Your task to perform on an android device: change notifications settings Image 0: 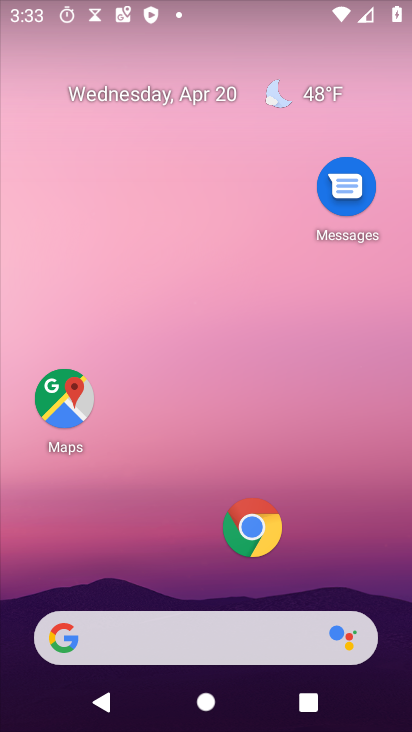
Step 0: drag from (227, 593) to (346, 86)
Your task to perform on an android device: change notifications settings Image 1: 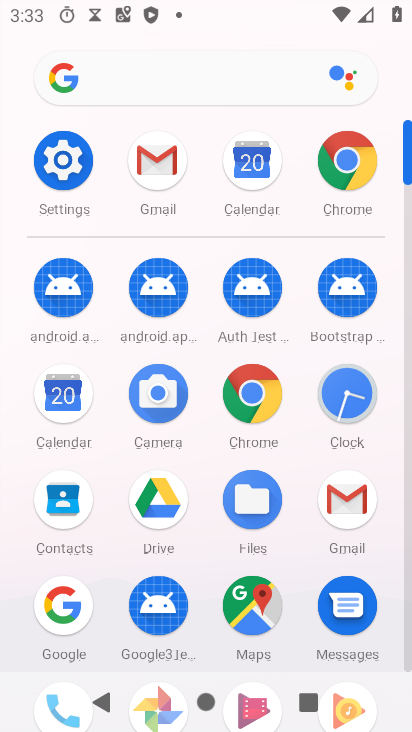
Step 1: click (66, 163)
Your task to perform on an android device: change notifications settings Image 2: 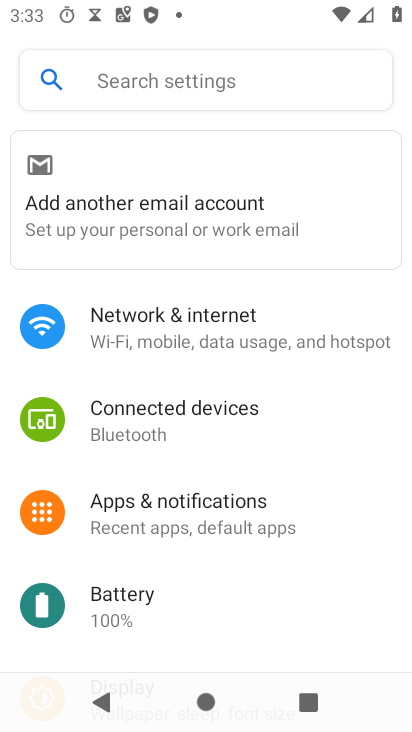
Step 2: click (163, 501)
Your task to perform on an android device: change notifications settings Image 3: 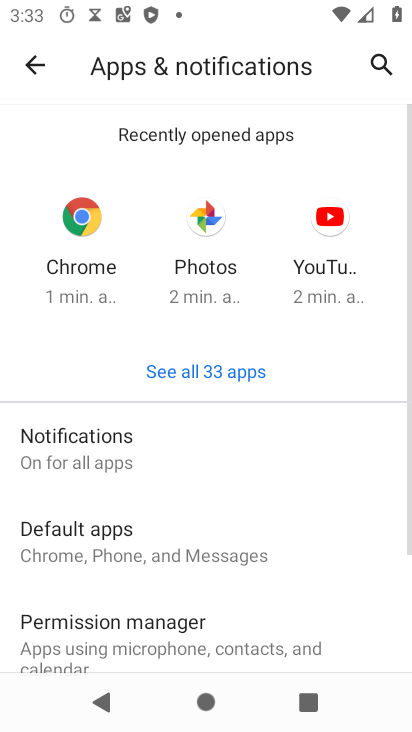
Step 3: click (112, 449)
Your task to perform on an android device: change notifications settings Image 4: 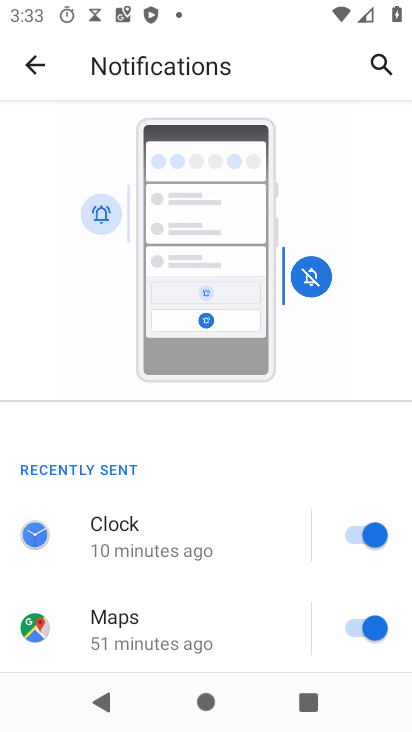
Step 4: click (356, 533)
Your task to perform on an android device: change notifications settings Image 5: 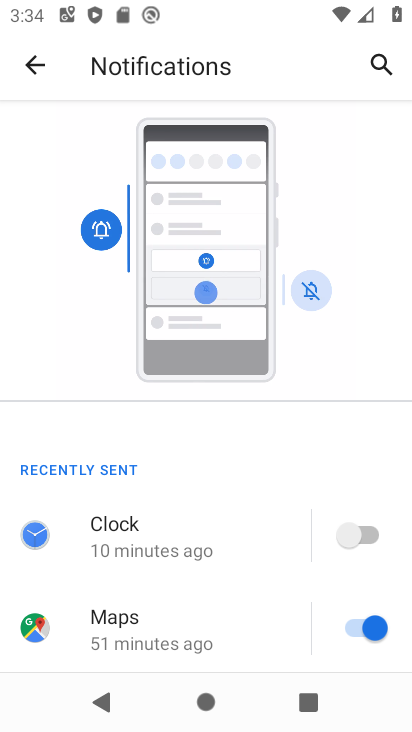
Step 5: task complete